Your task to perform on an android device: move an email to a new category in the gmail app Image 0: 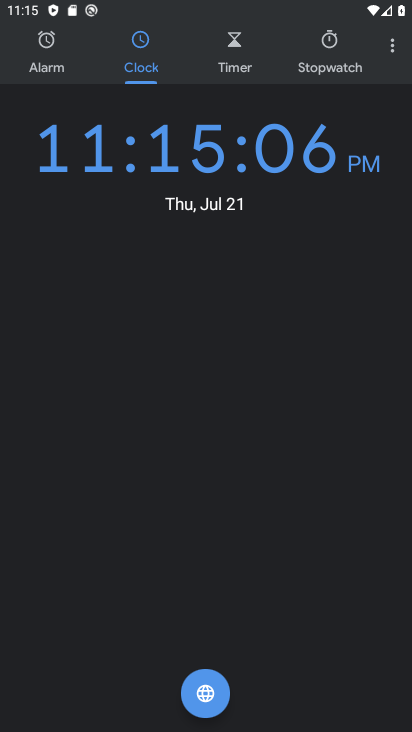
Step 0: press home button
Your task to perform on an android device: move an email to a new category in the gmail app Image 1: 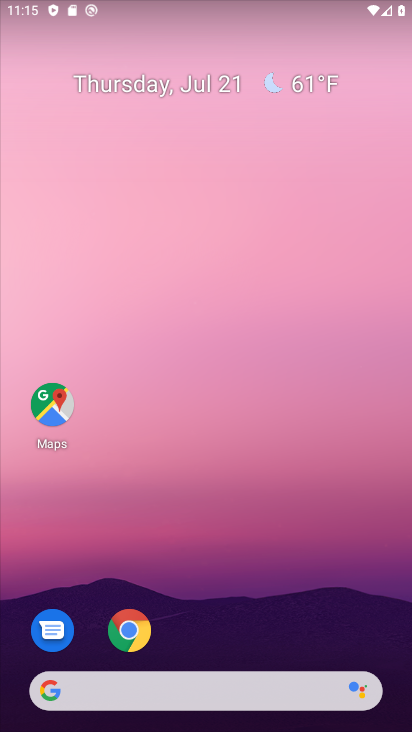
Step 1: drag from (229, 618) to (220, 242)
Your task to perform on an android device: move an email to a new category in the gmail app Image 2: 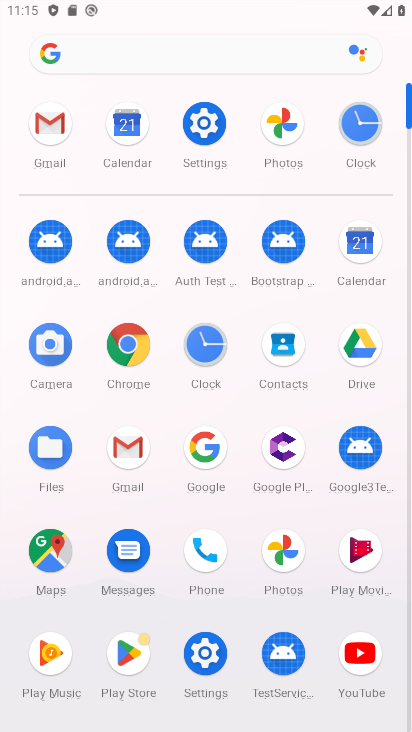
Step 2: click (139, 447)
Your task to perform on an android device: move an email to a new category in the gmail app Image 3: 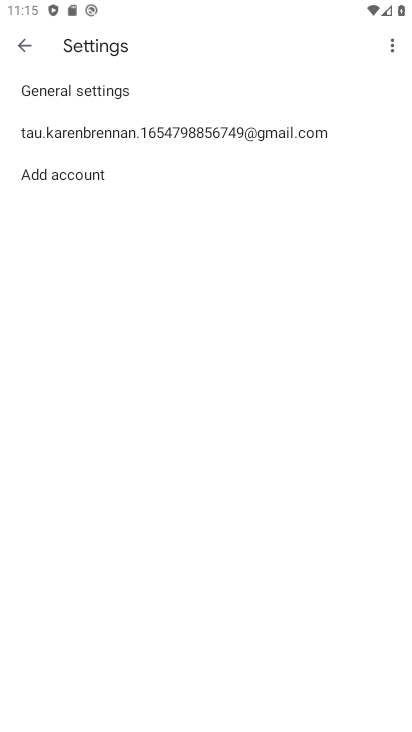
Step 3: click (17, 51)
Your task to perform on an android device: move an email to a new category in the gmail app Image 4: 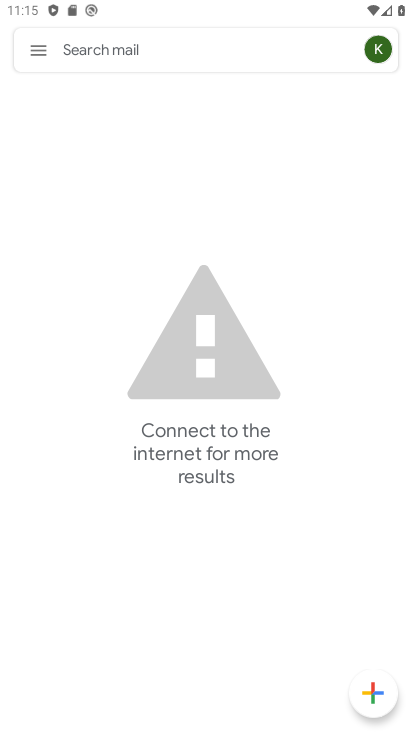
Step 4: click (44, 51)
Your task to perform on an android device: move an email to a new category in the gmail app Image 5: 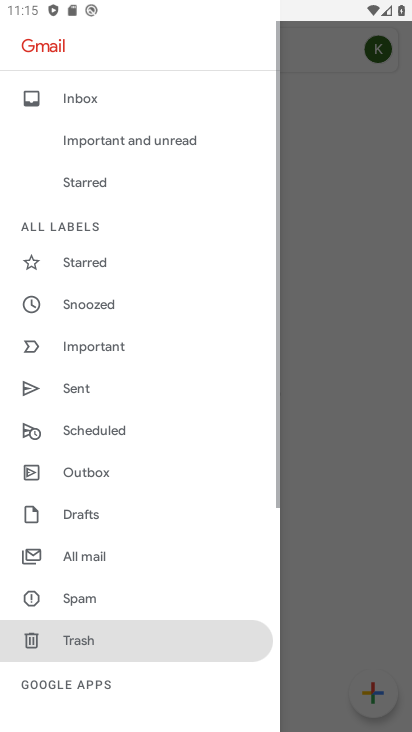
Step 5: click (84, 94)
Your task to perform on an android device: move an email to a new category in the gmail app Image 6: 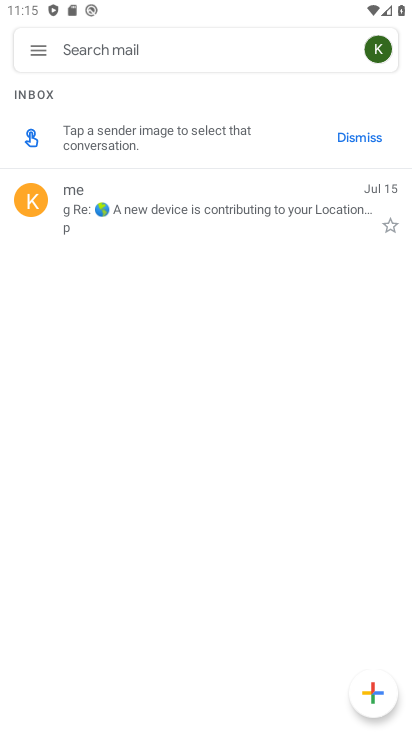
Step 6: click (178, 207)
Your task to perform on an android device: move an email to a new category in the gmail app Image 7: 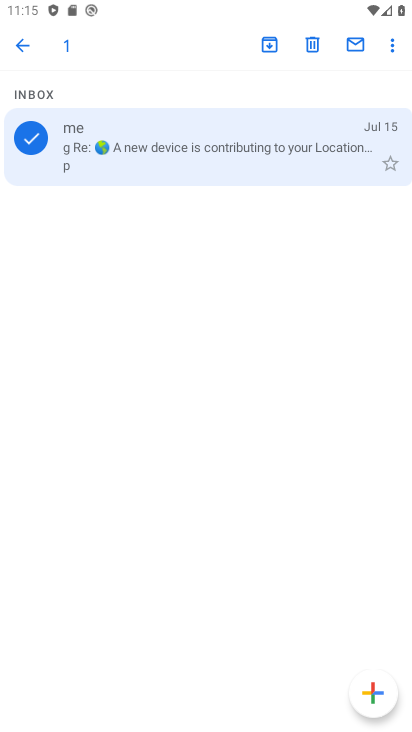
Step 7: click (391, 47)
Your task to perform on an android device: move an email to a new category in the gmail app Image 8: 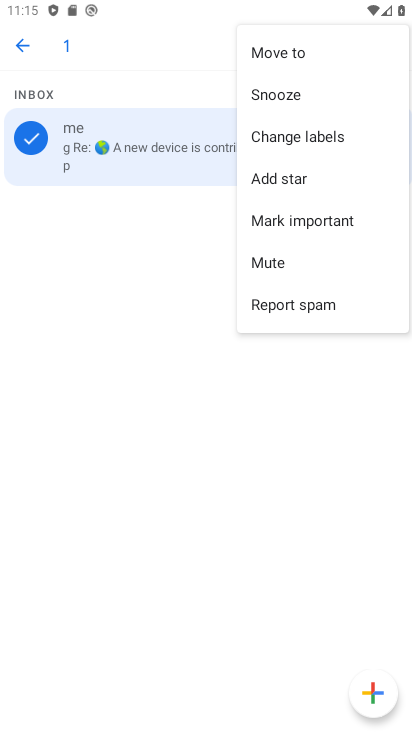
Step 8: click (305, 139)
Your task to perform on an android device: move an email to a new category in the gmail app Image 9: 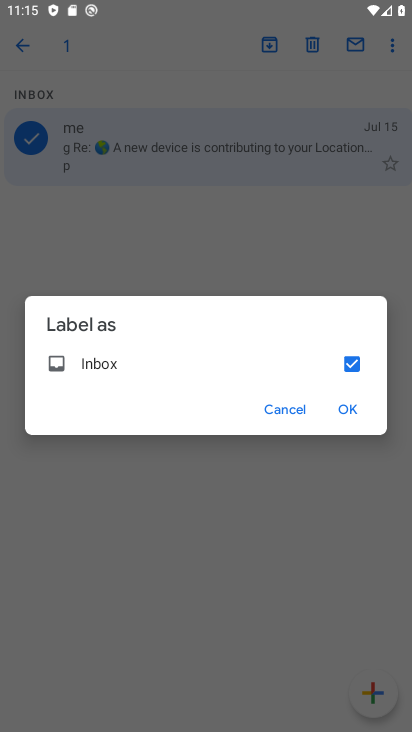
Step 9: click (347, 408)
Your task to perform on an android device: move an email to a new category in the gmail app Image 10: 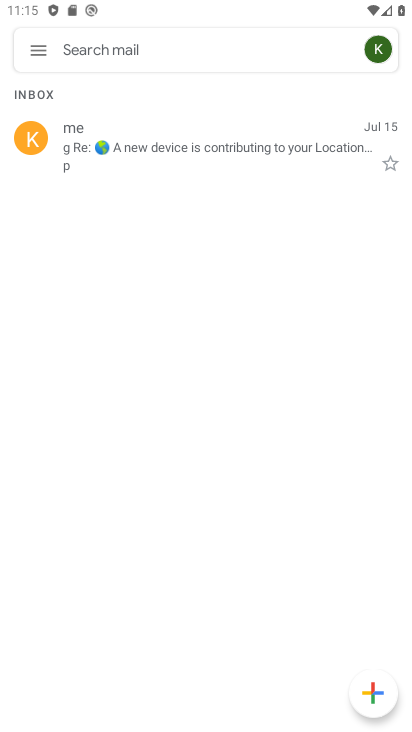
Step 10: task complete